Your task to perform on an android device: turn pop-ups on in chrome Image 0: 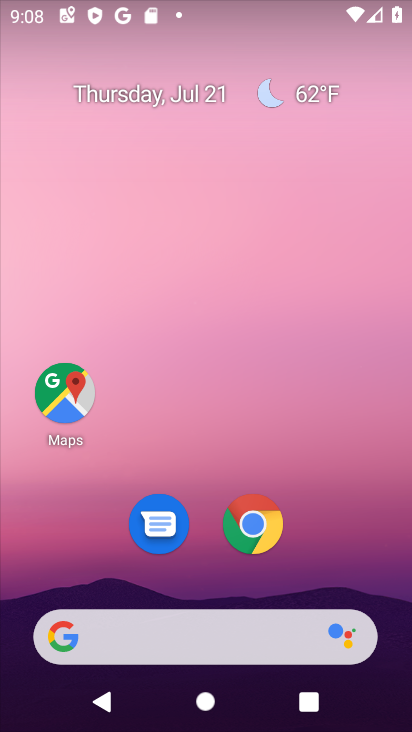
Step 0: press home button
Your task to perform on an android device: turn pop-ups on in chrome Image 1: 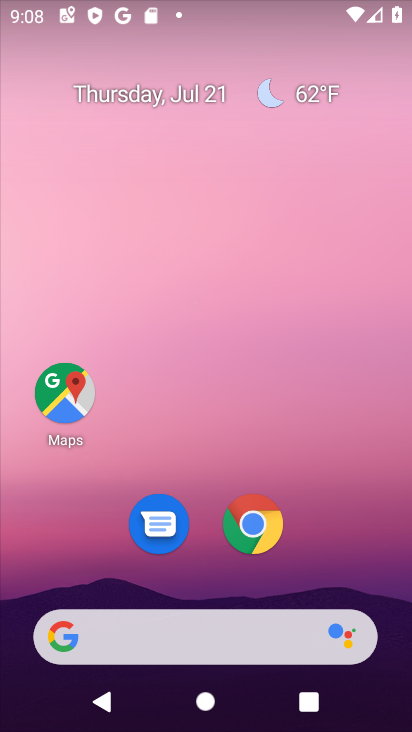
Step 1: click (252, 524)
Your task to perform on an android device: turn pop-ups on in chrome Image 2: 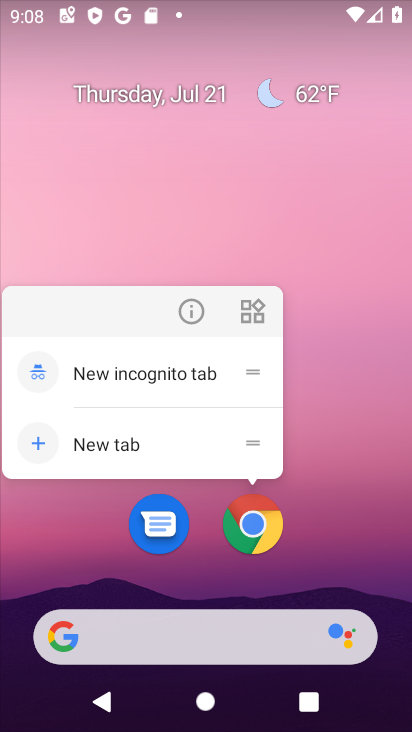
Step 2: click (252, 525)
Your task to perform on an android device: turn pop-ups on in chrome Image 3: 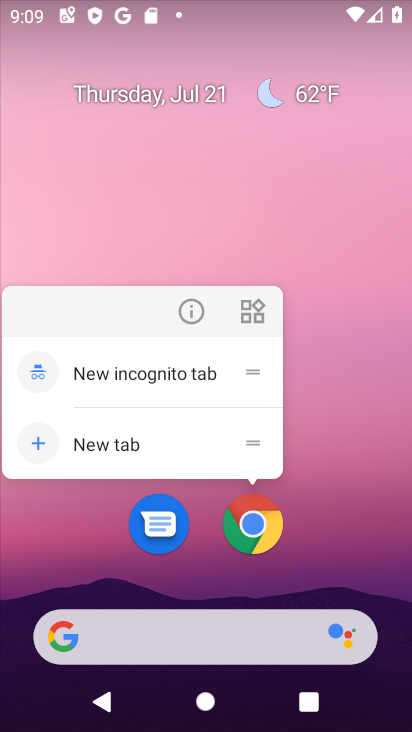
Step 3: click (252, 525)
Your task to perform on an android device: turn pop-ups on in chrome Image 4: 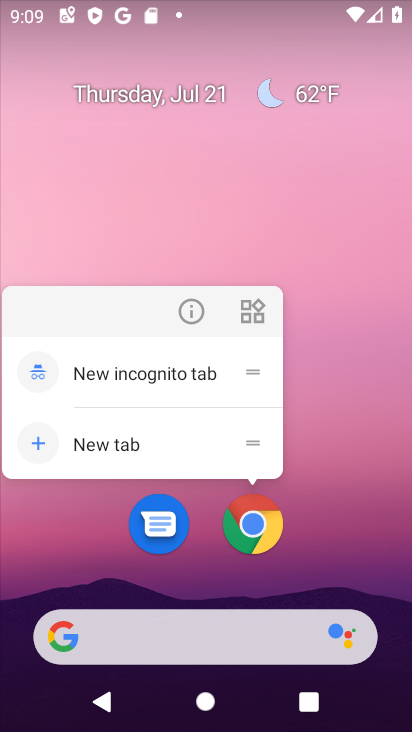
Step 4: click (254, 522)
Your task to perform on an android device: turn pop-ups on in chrome Image 5: 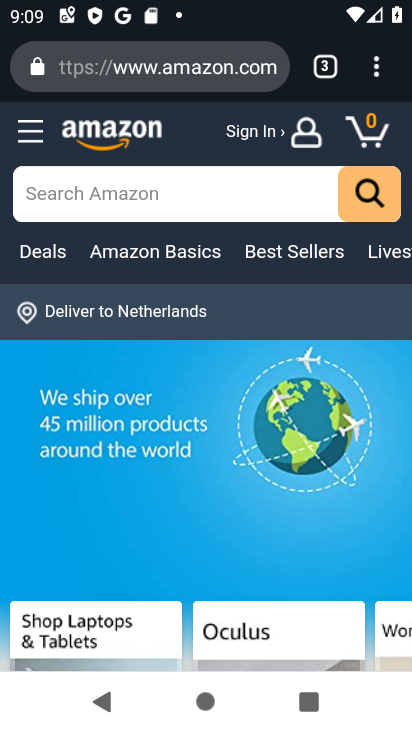
Step 5: click (374, 73)
Your task to perform on an android device: turn pop-ups on in chrome Image 6: 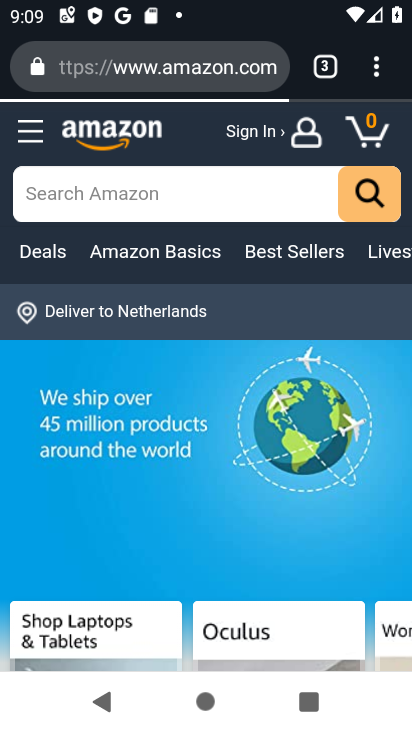
Step 6: drag from (374, 74) to (240, 511)
Your task to perform on an android device: turn pop-ups on in chrome Image 7: 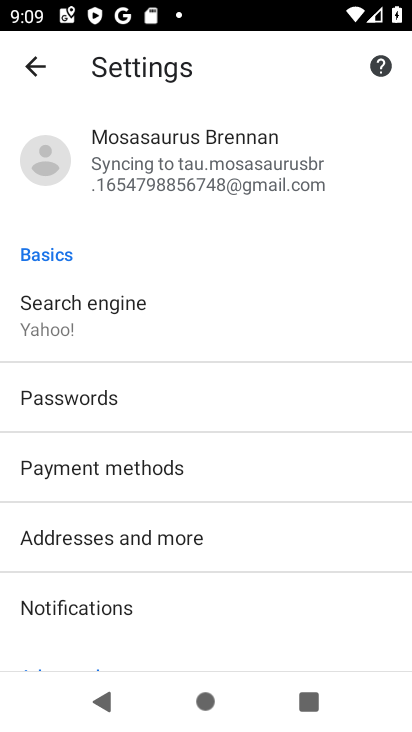
Step 7: drag from (223, 614) to (310, 170)
Your task to perform on an android device: turn pop-ups on in chrome Image 8: 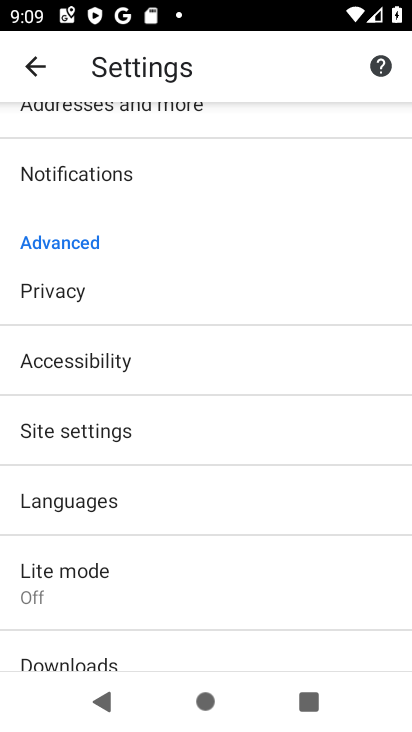
Step 8: click (76, 428)
Your task to perform on an android device: turn pop-ups on in chrome Image 9: 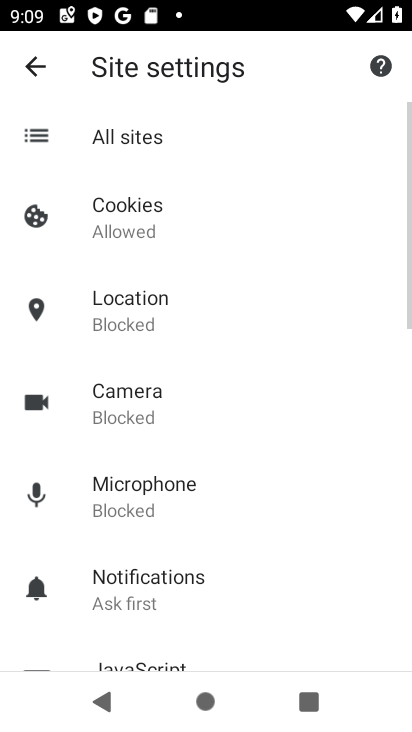
Step 9: drag from (220, 585) to (266, 154)
Your task to perform on an android device: turn pop-ups on in chrome Image 10: 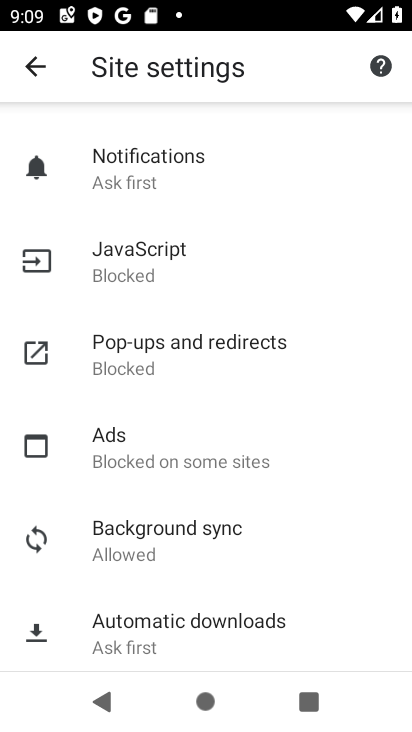
Step 10: click (157, 358)
Your task to perform on an android device: turn pop-ups on in chrome Image 11: 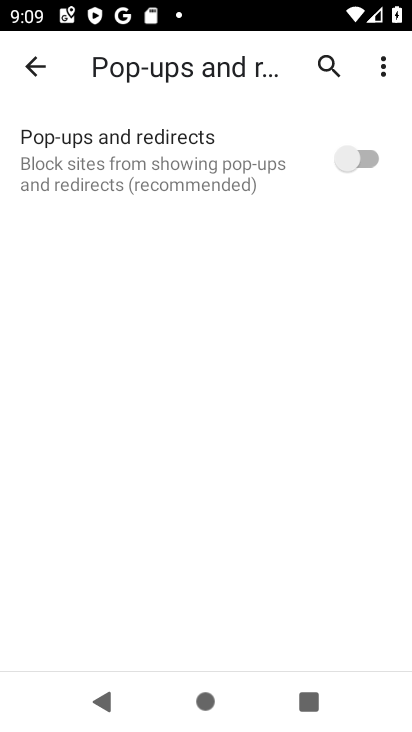
Step 11: click (363, 161)
Your task to perform on an android device: turn pop-ups on in chrome Image 12: 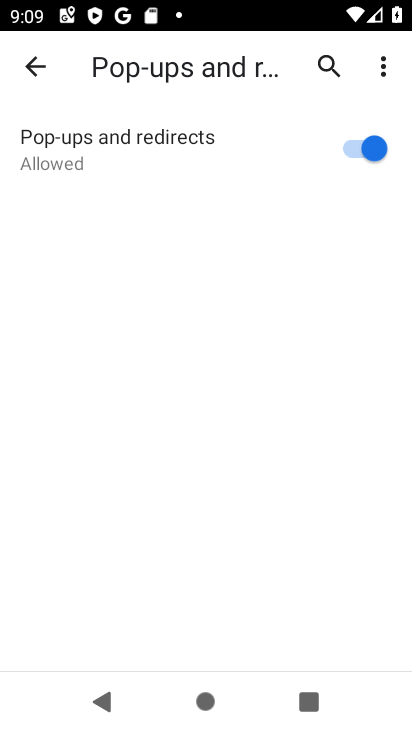
Step 12: task complete